Your task to perform on an android device: check out phone information Image 0: 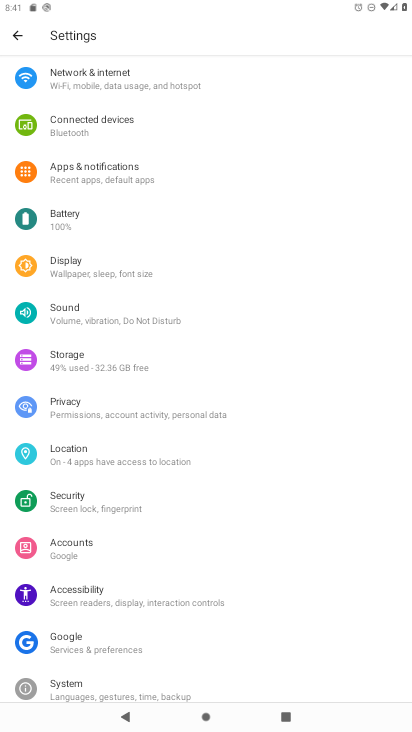
Step 0: drag from (167, 636) to (164, 183)
Your task to perform on an android device: check out phone information Image 1: 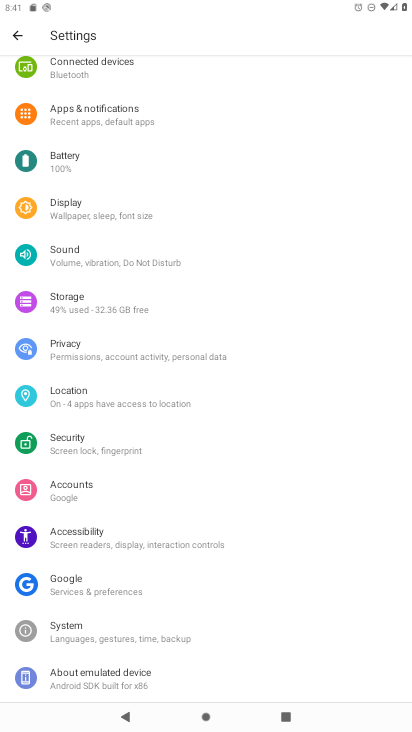
Step 1: click (108, 688)
Your task to perform on an android device: check out phone information Image 2: 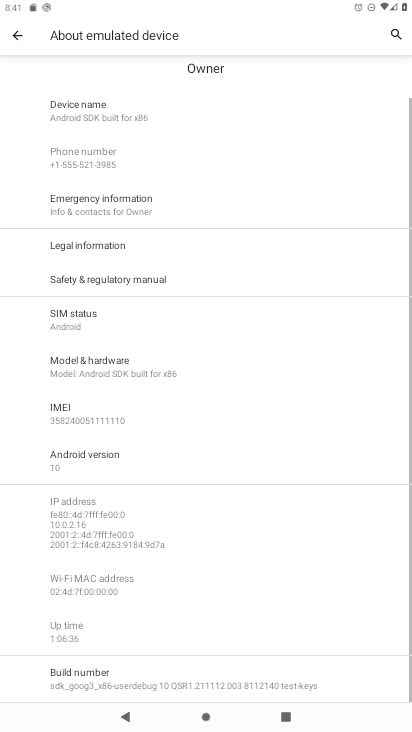
Step 2: task complete